Your task to perform on an android device: turn off airplane mode Image 0: 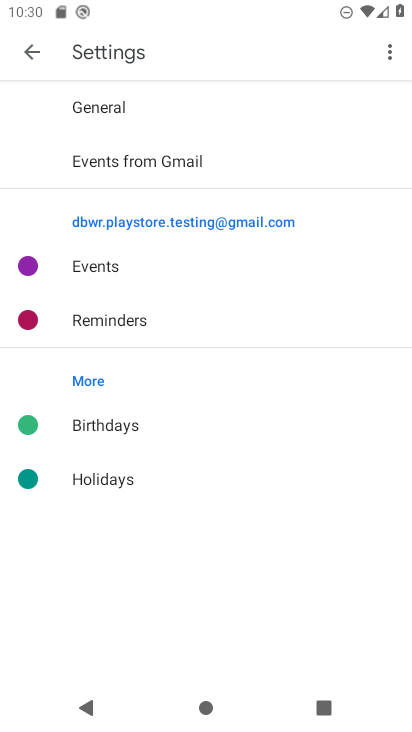
Step 0: press home button
Your task to perform on an android device: turn off airplane mode Image 1: 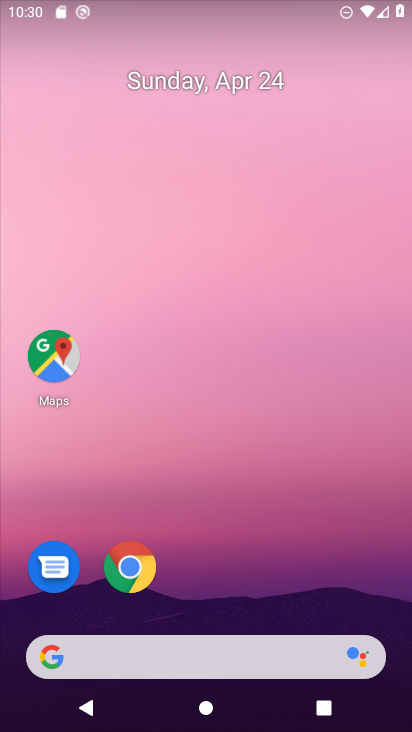
Step 1: drag from (213, 623) to (7, 2)
Your task to perform on an android device: turn off airplane mode Image 2: 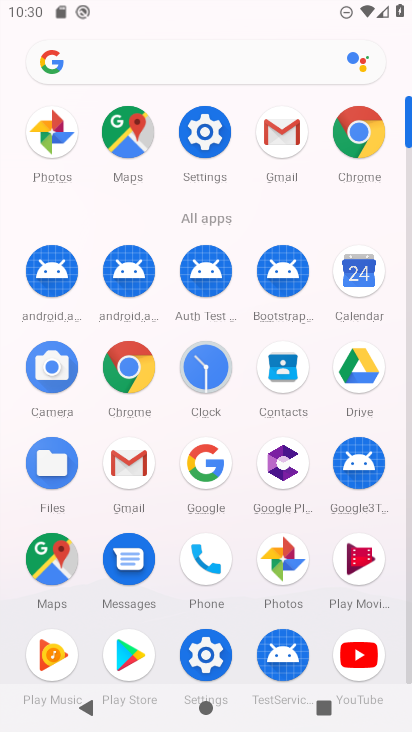
Step 2: click (200, 132)
Your task to perform on an android device: turn off airplane mode Image 3: 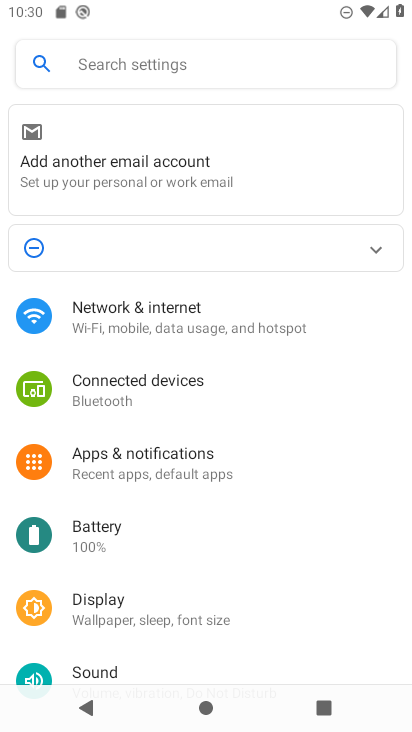
Step 3: click (159, 323)
Your task to perform on an android device: turn off airplane mode Image 4: 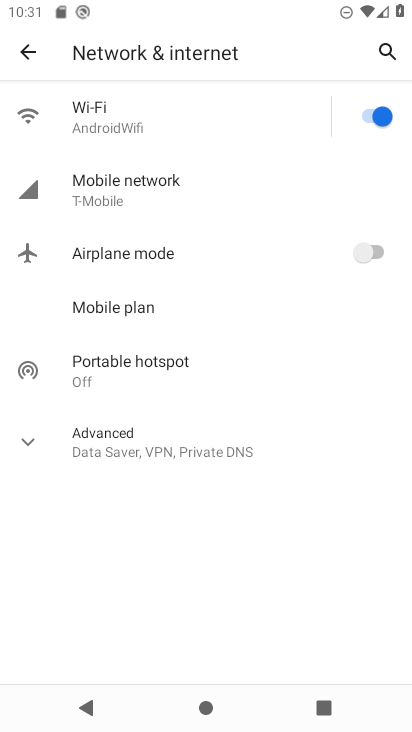
Step 4: task complete